Your task to perform on an android device: search for starred emails in the gmail app Image 0: 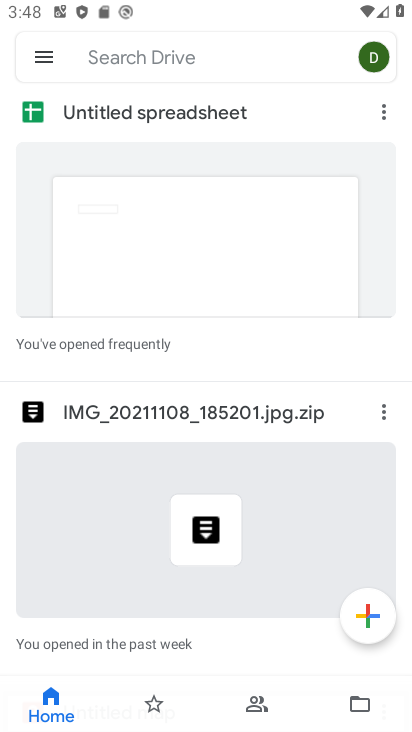
Step 0: press home button
Your task to perform on an android device: search for starred emails in the gmail app Image 1: 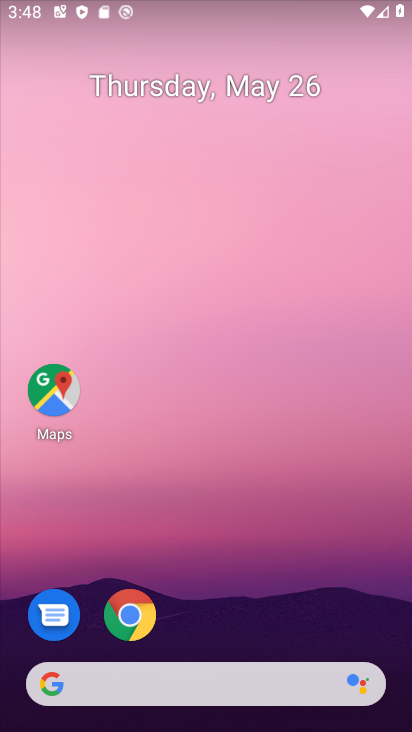
Step 1: drag from (286, 628) to (361, 5)
Your task to perform on an android device: search for starred emails in the gmail app Image 2: 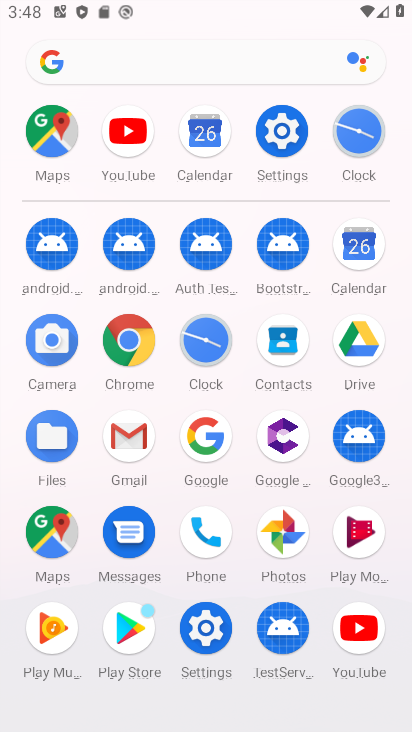
Step 2: click (106, 450)
Your task to perform on an android device: search for starred emails in the gmail app Image 3: 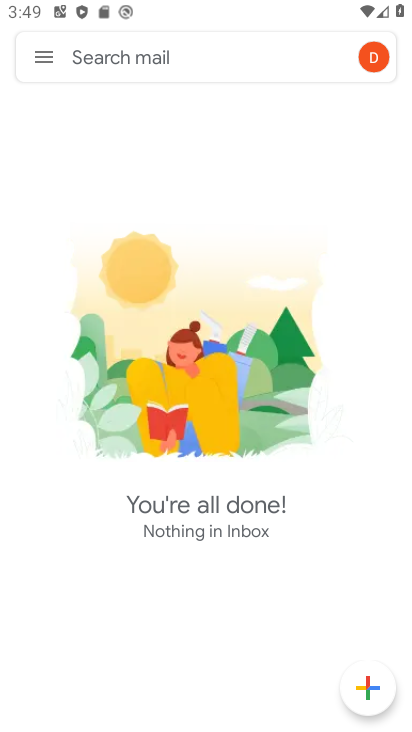
Step 3: click (30, 54)
Your task to perform on an android device: search for starred emails in the gmail app Image 4: 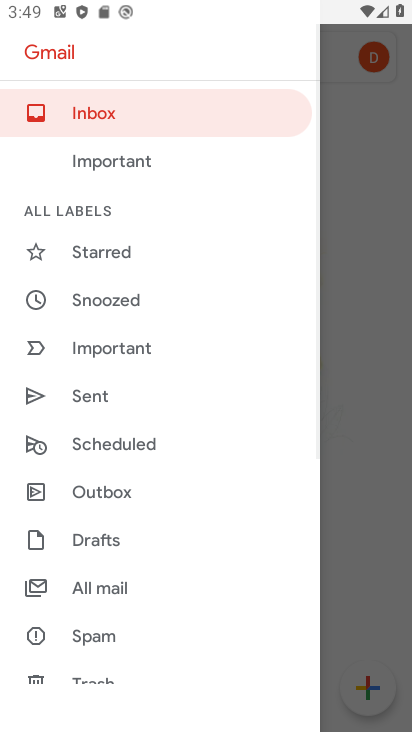
Step 4: click (165, 244)
Your task to perform on an android device: search for starred emails in the gmail app Image 5: 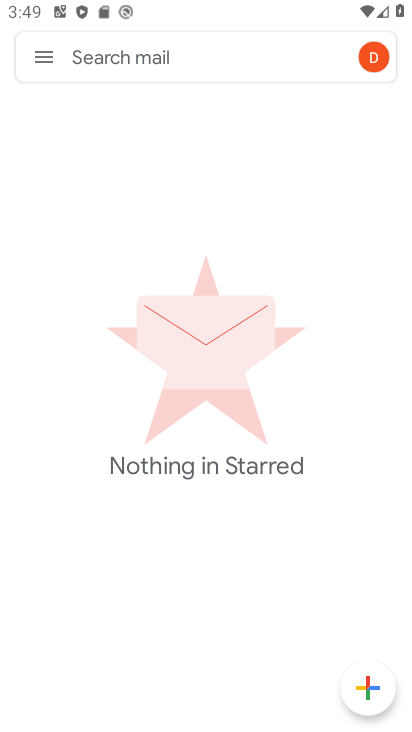
Step 5: task complete